Your task to perform on an android device: Open Wikipedia Image 0: 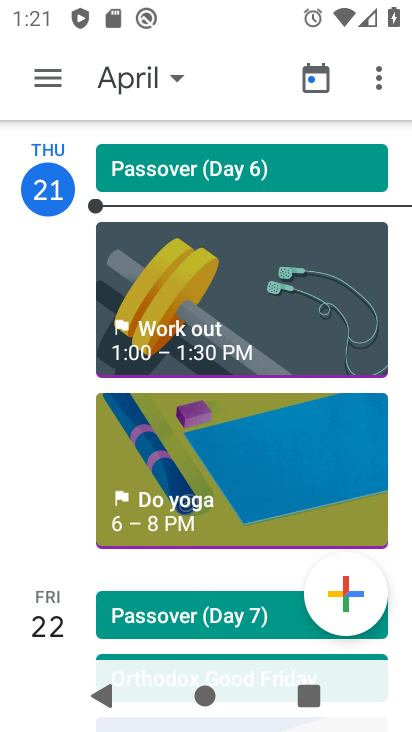
Step 0: press home button
Your task to perform on an android device: Open Wikipedia Image 1: 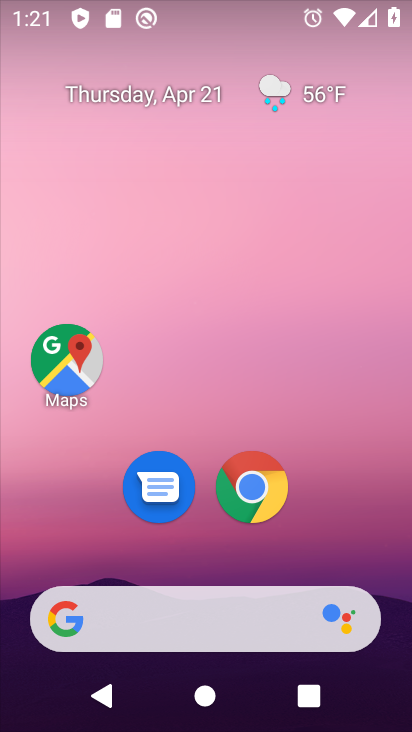
Step 1: click (252, 492)
Your task to perform on an android device: Open Wikipedia Image 2: 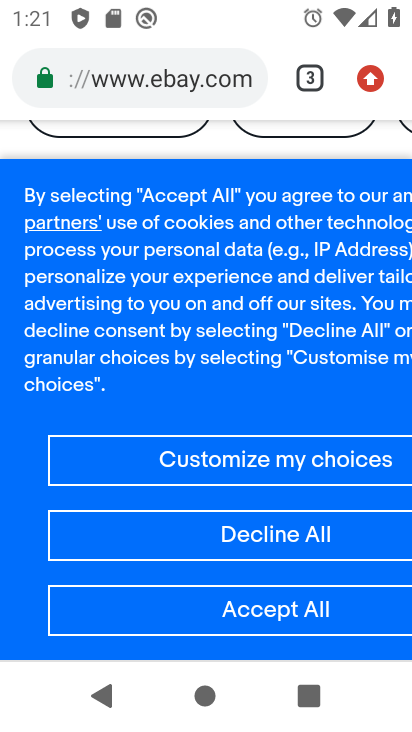
Step 2: click (320, 72)
Your task to perform on an android device: Open Wikipedia Image 3: 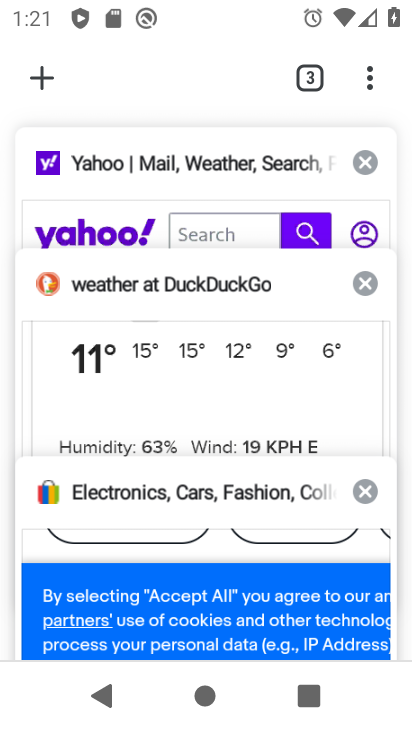
Step 3: click (49, 76)
Your task to perform on an android device: Open Wikipedia Image 4: 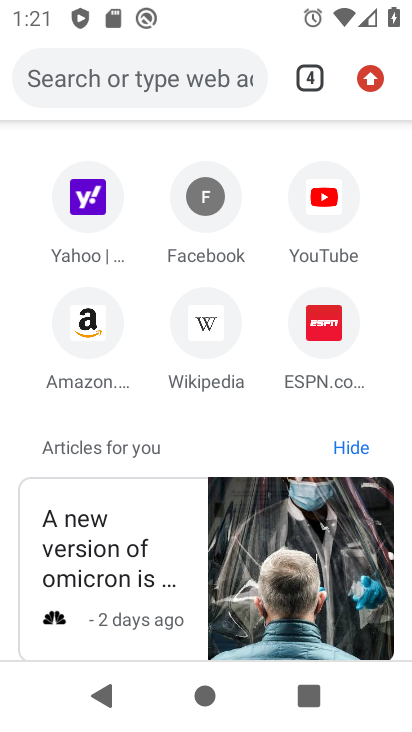
Step 4: click (203, 327)
Your task to perform on an android device: Open Wikipedia Image 5: 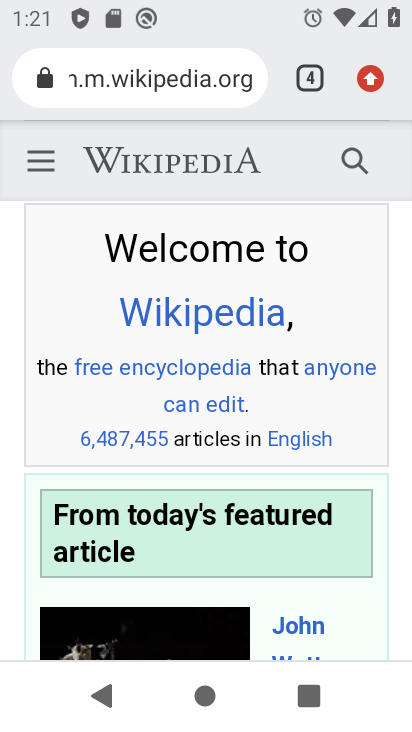
Step 5: task complete